Your task to perform on an android device: find which apps use the phone's location Image 0: 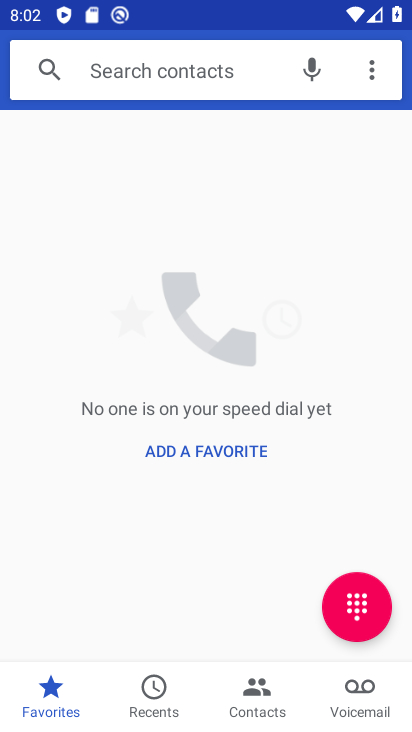
Step 0: press home button
Your task to perform on an android device: find which apps use the phone's location Image 1: 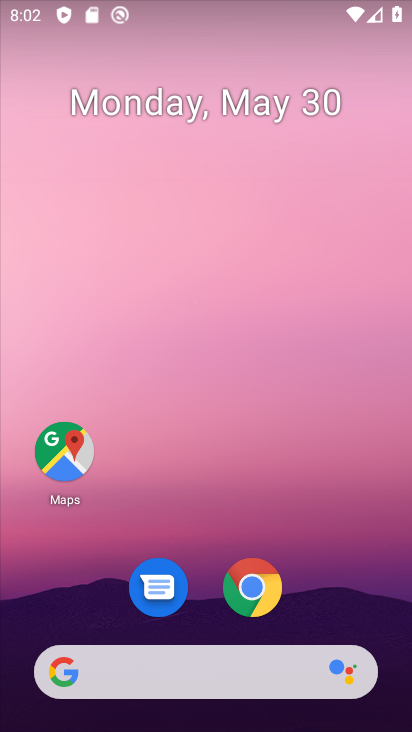
Step 1: drag from (195, 600) to (222, 79)
Your task to perform on an android device: find which apps use the phone's location Image 2: 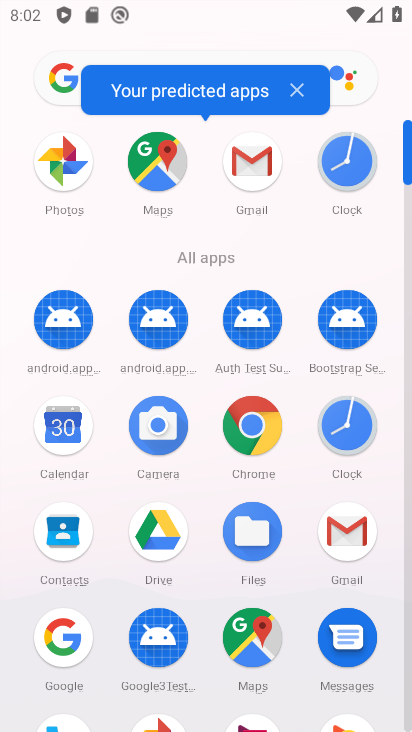
Step 2: drag from (202, 557) to (225, 235)
Your task to perform on an android device: find which apps use the phone's location Image 3: 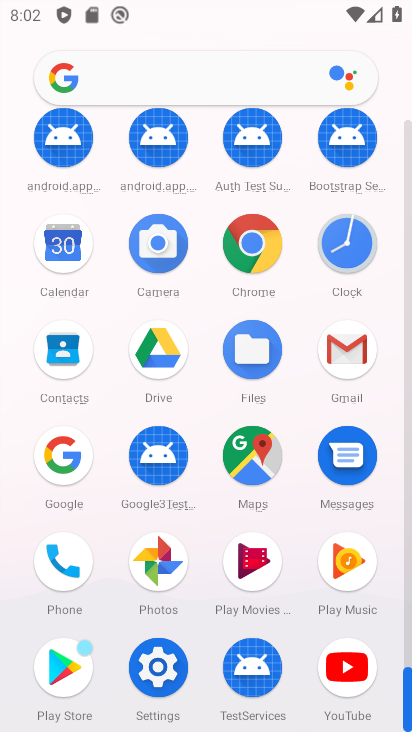
Step 3: click (156, 682)
Your task to perform on an android device: find which apps use the phone's location Image 4: 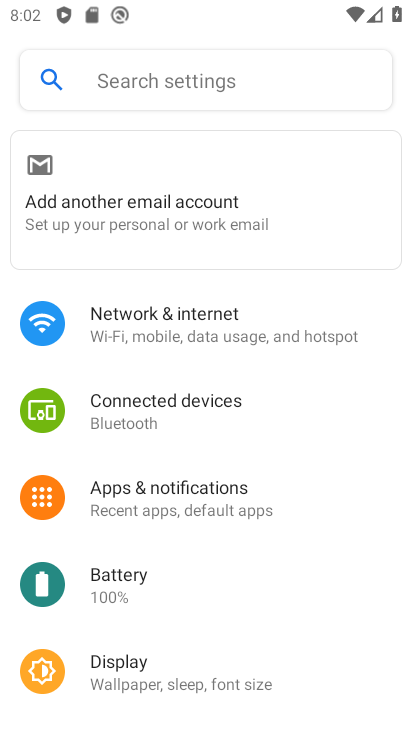
Step 4: drag from (172, 607) to (225, 230)
Your task to perform on an android device: find which apps use the phone's location Image 5: 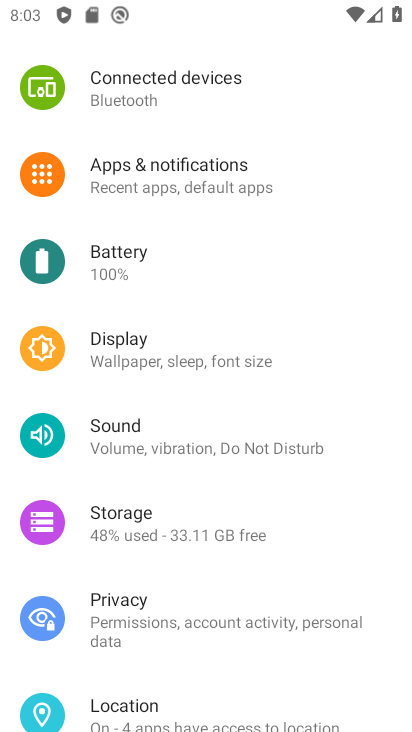
Step 5: click (180, 715)
Your task to perform on an android device: find which apps use the phone's location Image 6: 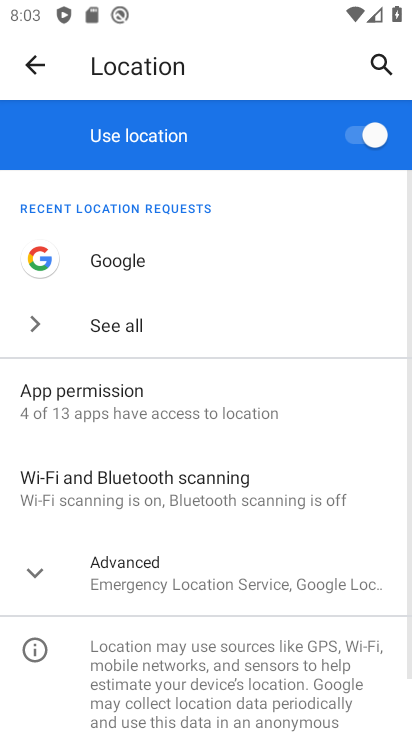
Step 6: click (163, 407)
Your task to perform on an android device: find which apps use the phone's location Image 7: 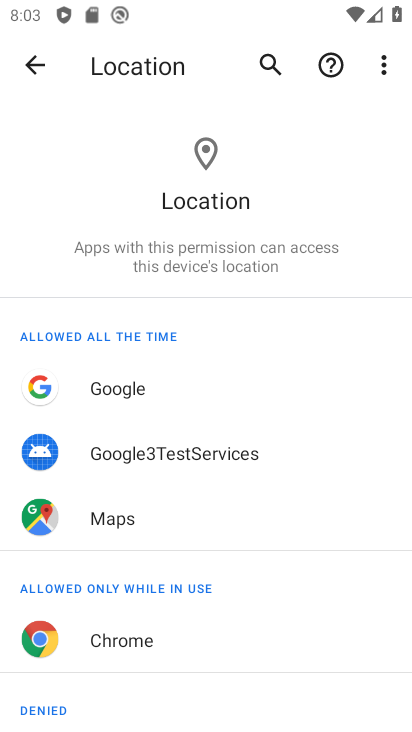
Step 7: task complete